Your task to perform on an android device: Go to notification settings Image 0: 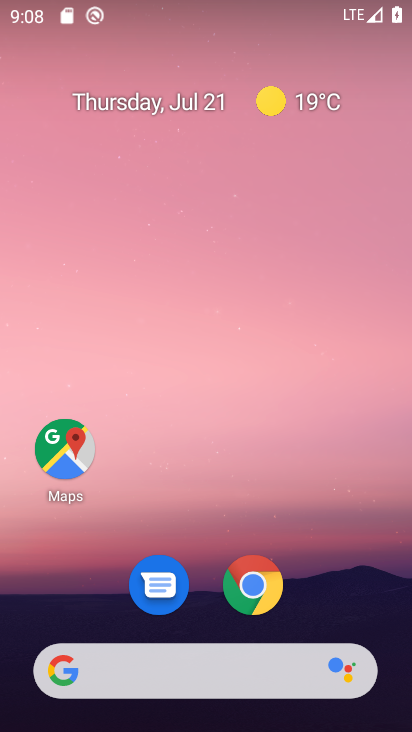
Step 0: drag from (203, 493) to (255, 13)
Your task to perform on an android device: Go to notification settings Image 1: 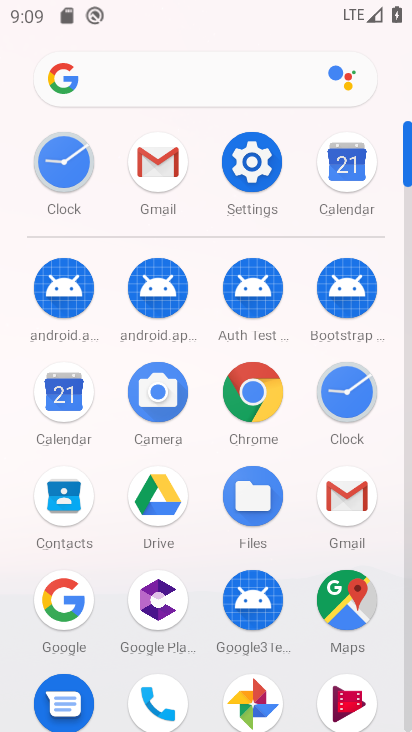
Step 1: click (258, 169)
Your task to perform on an android device: Go to notification settings Image 2: 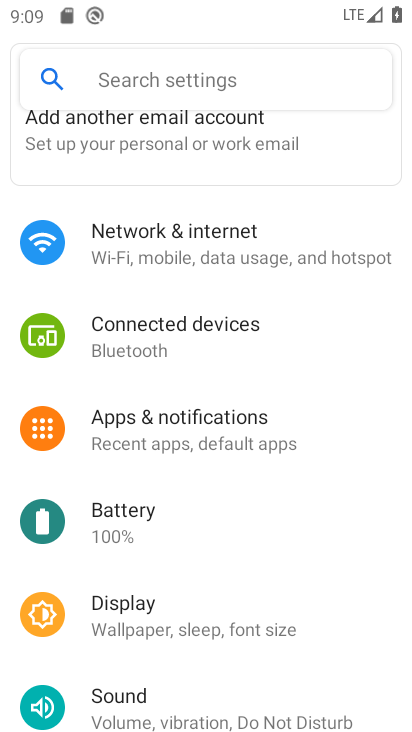
Step 2: click (217, 427)
Your task to perform on an android device: Go to notification settings Image 3: 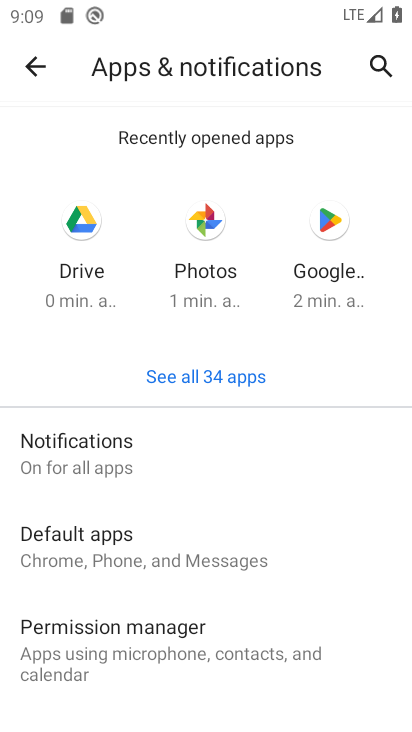
Step 3: click (87, 442)
Your task to perform on an android device: Go to notification settings Image 4: 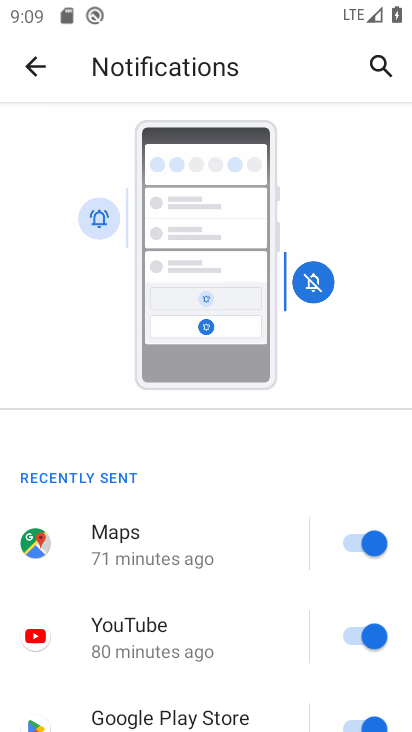
Step 4: task complete